Your task to perform on an android device: Open privacy settings Image 0: 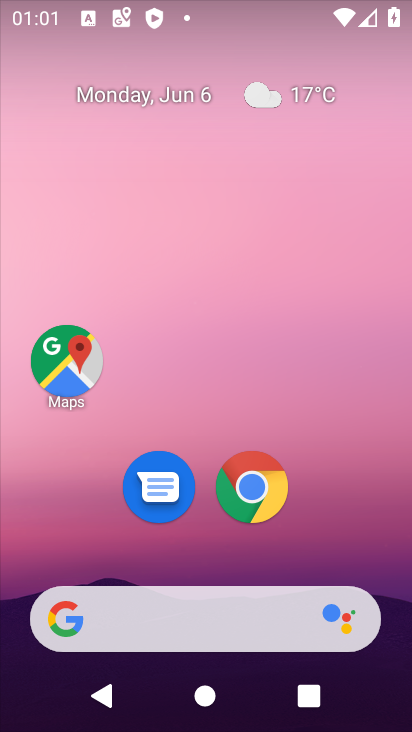
Step 0: drag from (395, 612) to (339, 67)
Your task to perform on an android device: Open privacy settings Image 1: 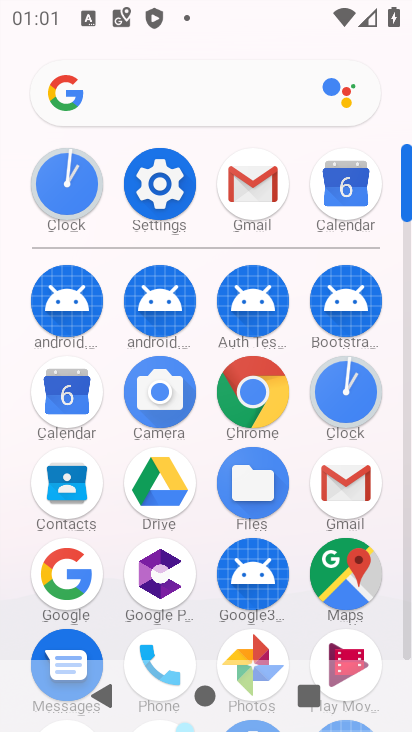
Step 1: click (407, 631)
Your task to perform on an android device: Open privacy settings Image 2: 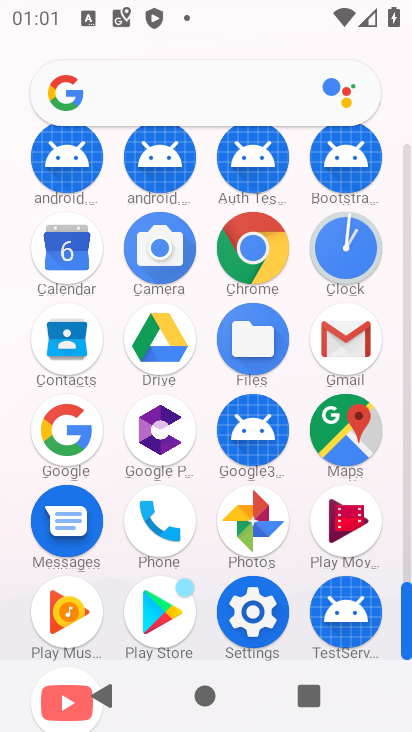
Step 2: click (407, 631)
Your task to perform on an android device: Open privacy settings Image 3: 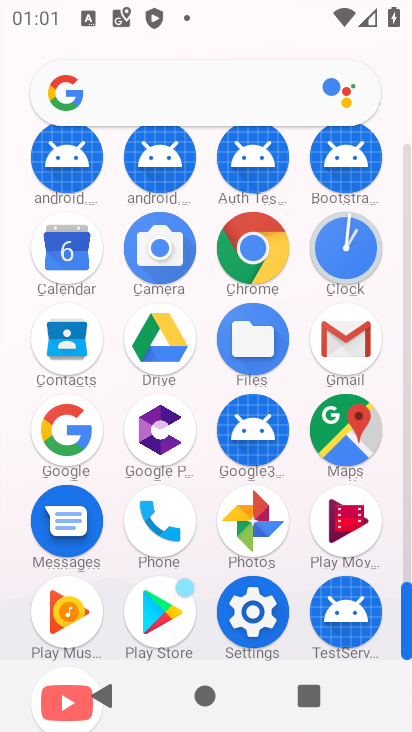
Step 3: click (255, 607)
Your task to perform on an android device: Open privacy settings Image 4: 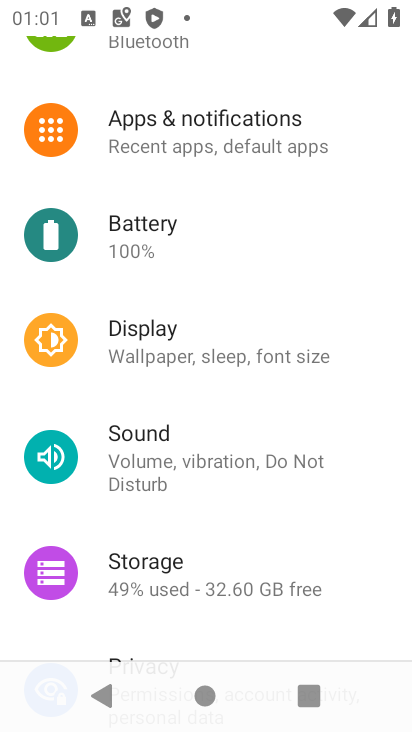
Step 4: drag from (337, 506) to (295, 143)
Your task to perform on an android device: Open privacy settings Image 5: 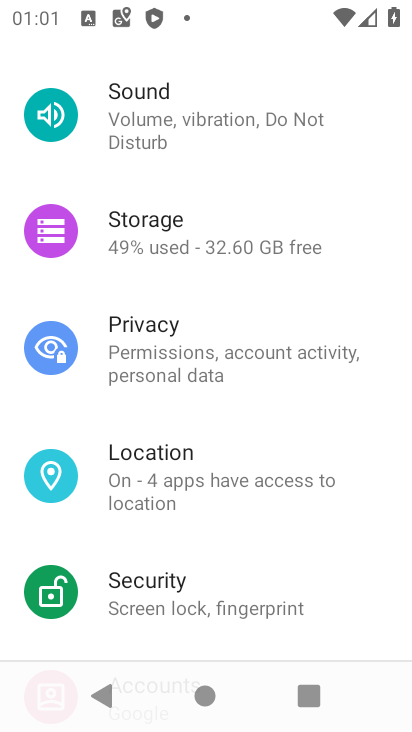
Step 5: click (135, 340)
Your task to perform on an android device: Open privacy settings Image 6: 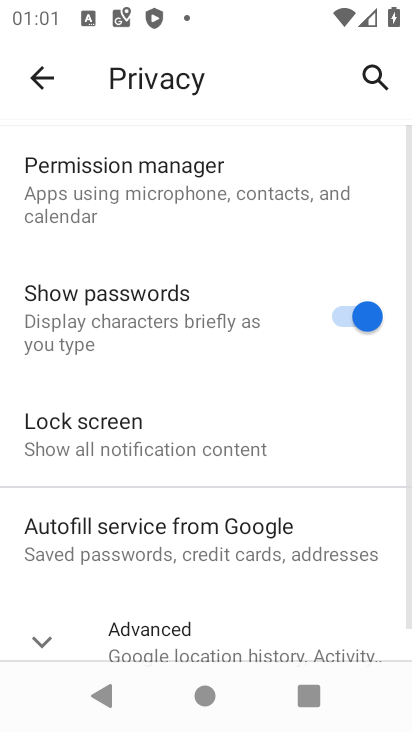
Step 6: drag from (321, 581) to (276, 272)
Your task to perform on an android device: Open privacy settings Image 7: 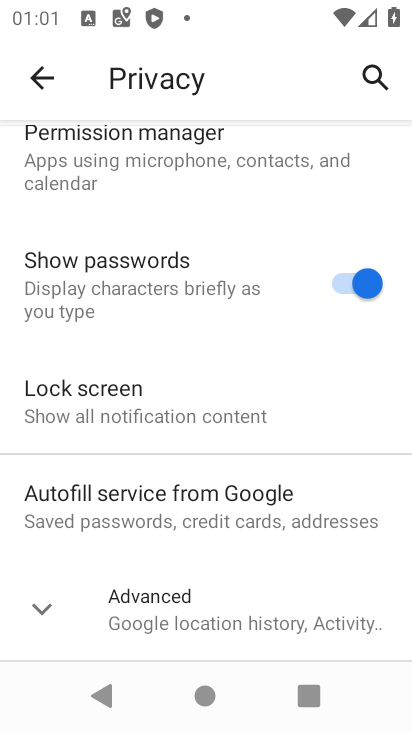
Step 7: click (44, 608)
Your task to perform on an android device: Open privacy settings Image 8: 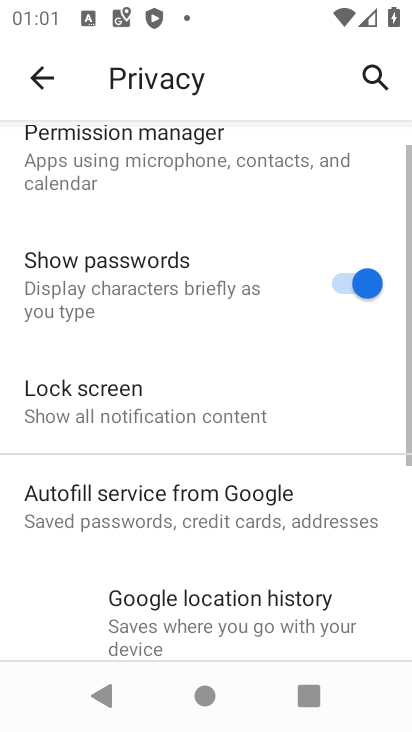
Step 8: task complete